Your task to perform on an android device: Show me the alarms in the clock app Image 0: 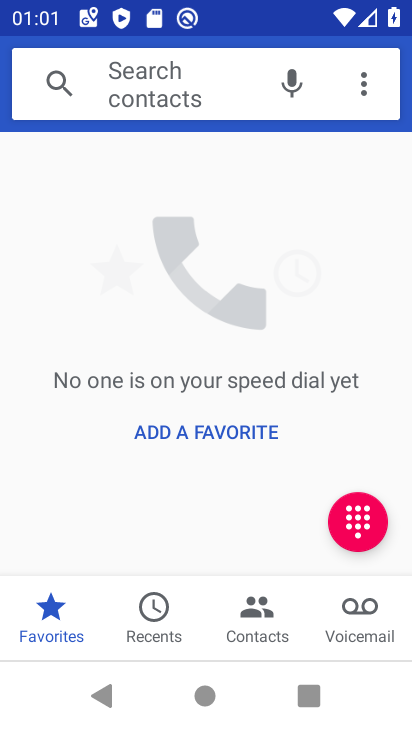
Step 0: press home button
Your task to perform on an android device: Show me the alarms in the clock app Image 1: 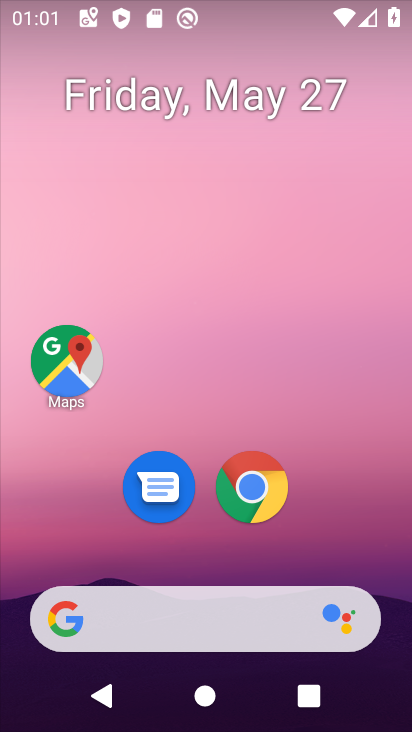
Step 1: drag from (154, 728) to (189, 39)
Your task to perform on an android device: Show me the alarms in the clock app Image 2: 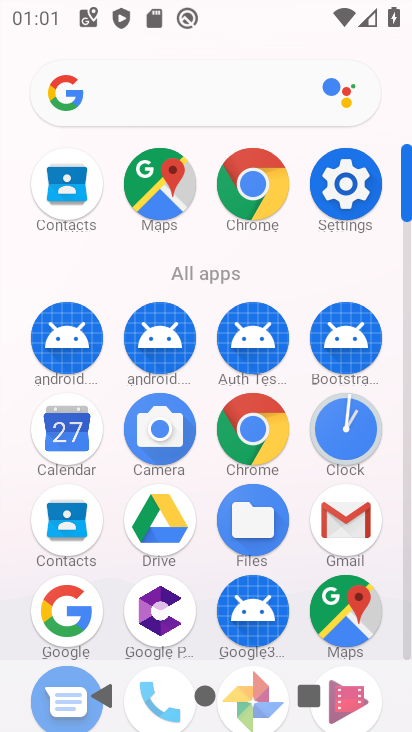
Step 2: click (344, 446)
Your task to perform on an android device: Show me the alarms in the clock app Image 3: 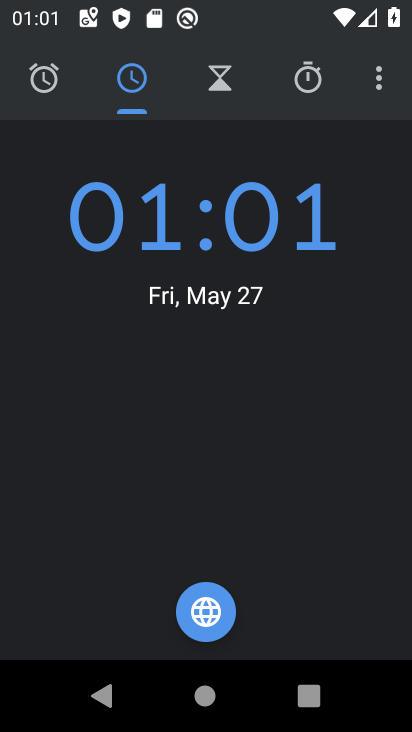
Step 3: click (39, 77)
Your task to perform on an android device: Show me the alarms in the clock app Image 4: 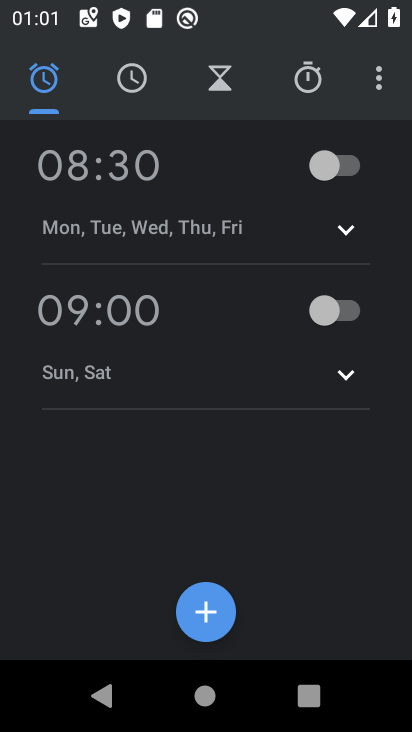
Step 4: task complete